Your task to perform on an android device: Open the map Image 0: 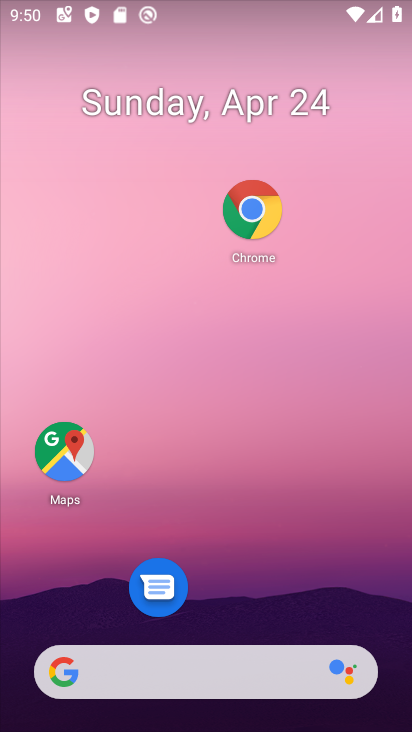
Step 0: drag from (218, 603) to (229, 18)
Your task to perform on an android device: Open the map Image 1: 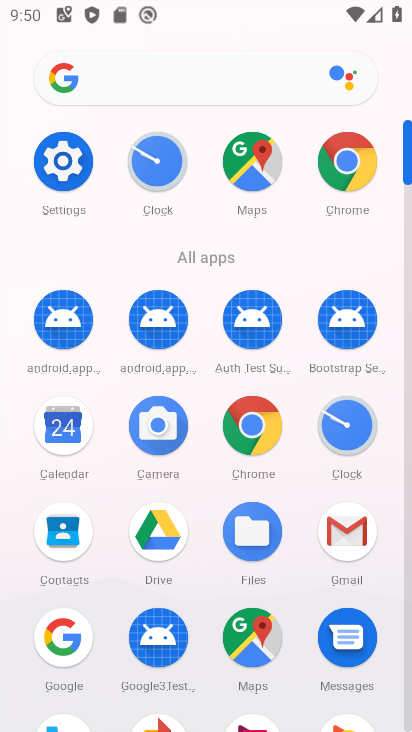
Step 1: click (245, 630)
Your task to perform on an android device: Open the map Image 2: 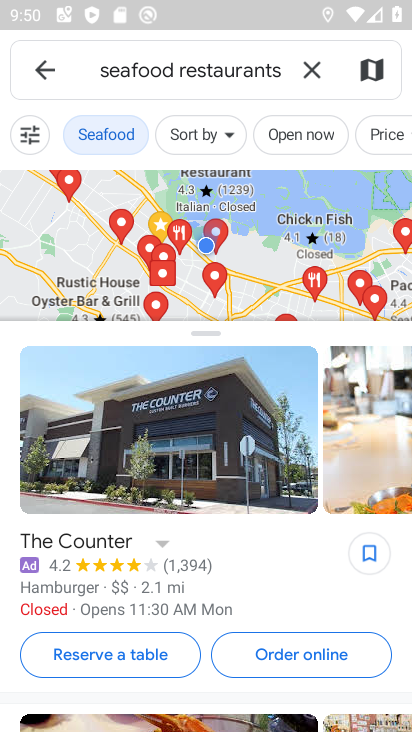
Step 2: click (36, 69)
Your task to perform on an android device: Open the map Image 3: 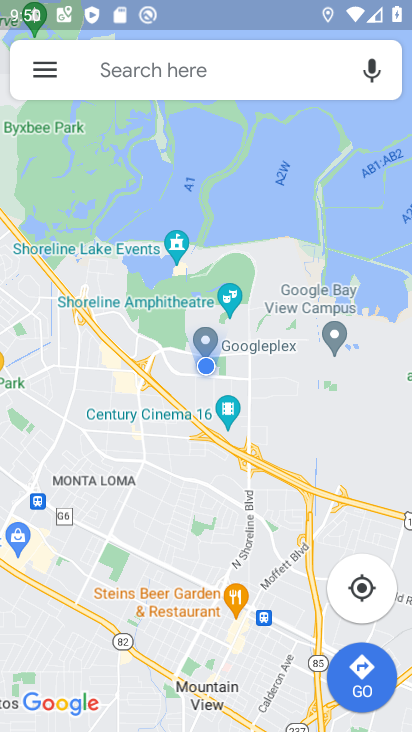
Step 3: task complete